Your task to perform on an android device: Open the web browser Image 0: 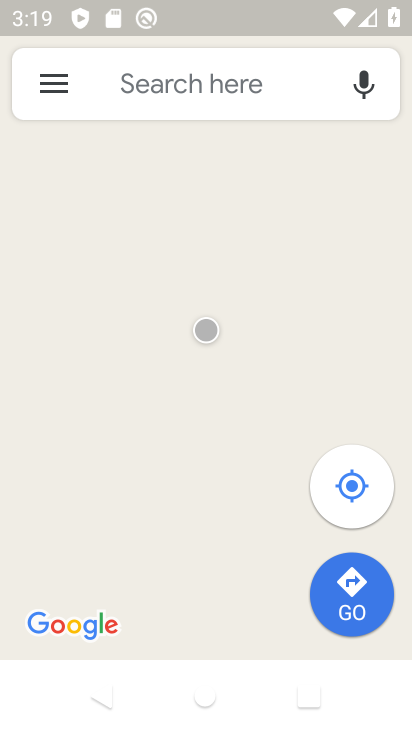
Step 0: press home button
Your task to perform on an android device: Open the web browser Image 1: 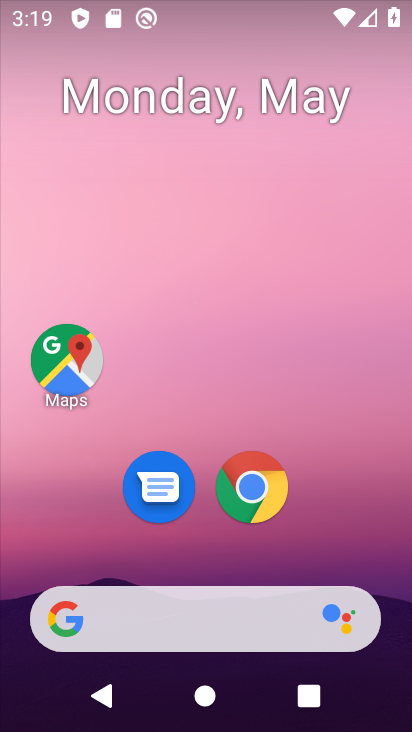
Step 1: click (247, 498)
Your task to perform on an android device: Open the web browser Image 2: 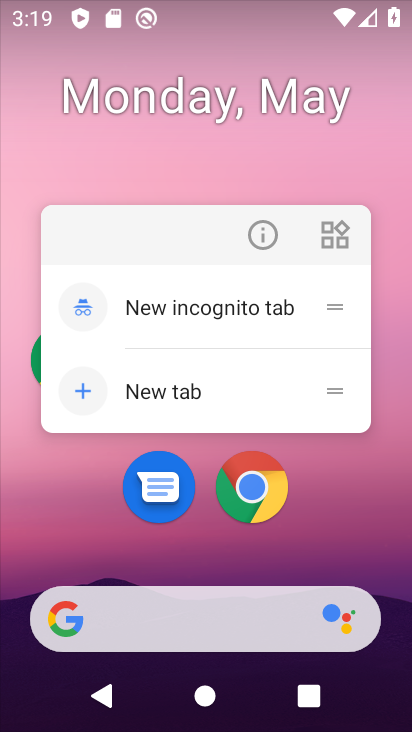
Step 2: click (244, 498)
Your task to perform on an android device: Open the web browser Image 3: 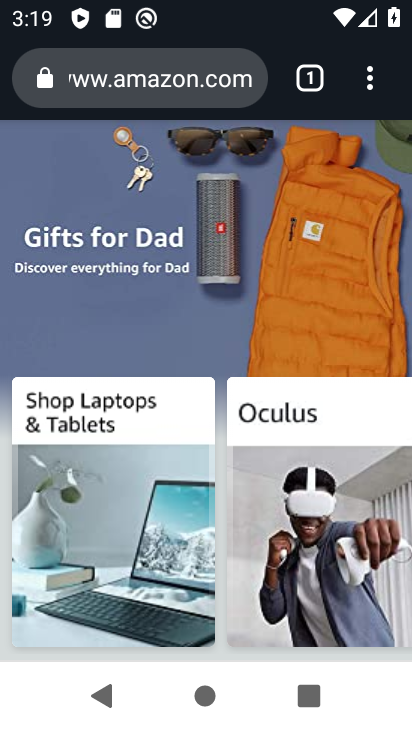
Step 3: click (325, 81)
Your task to perform on an android device: Open the web browser Image 4: 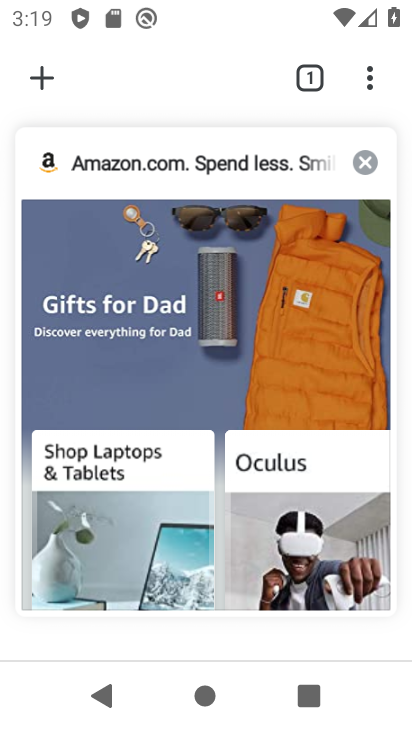
Step 4: click (360, 156)
Your task to perform on an android device: Open the web browser Image 5: 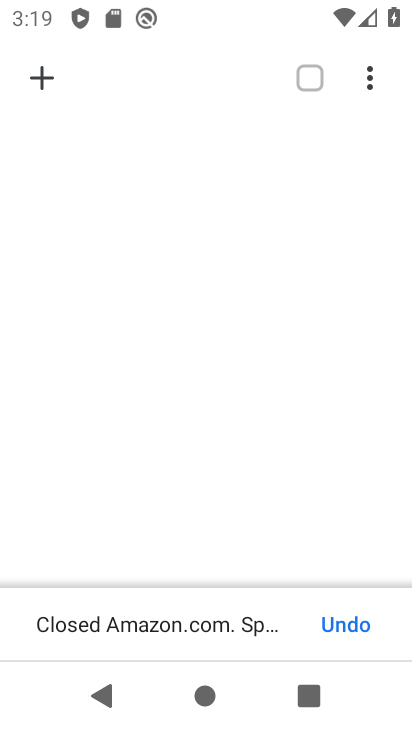
Step 5: click (42, 91)
Your task to perform on an android device: Open the web browser Image 6: 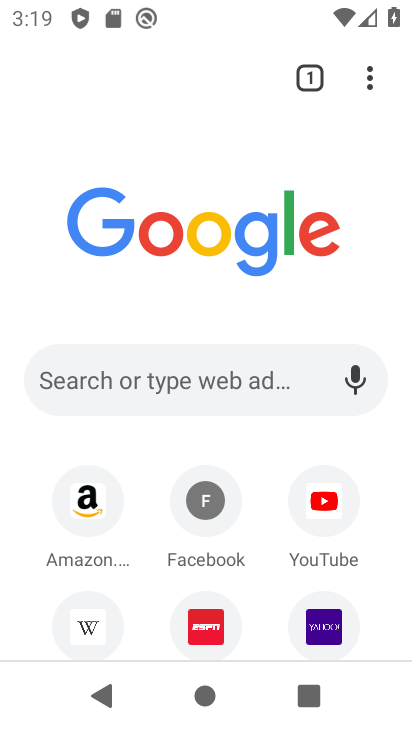
Step 6: task complete